Your task to perform on an android device: install app "Etsy: Buy & Sell Unique Items" Image 0: 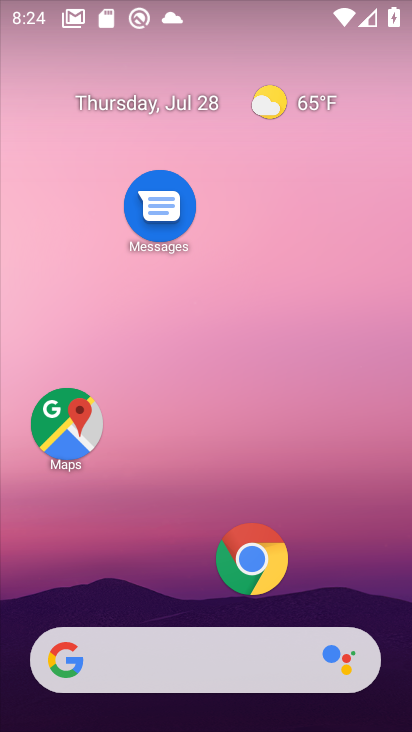
Step 0: drag from (163, 593) to (123, 0)
Your task to perform on an android device: install app "Etsy: Buy & Sell Unique Items" Image 1: 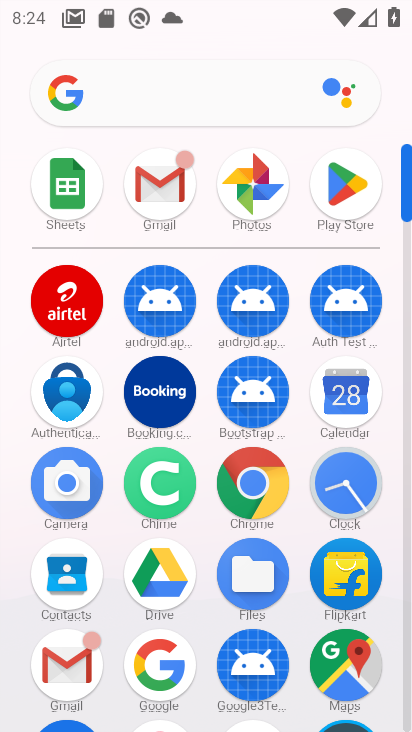
Step 1: click (343, 186)
Your task to perform on an android device: install app "Etsy: Buy & Sell Unique Items" Image 2: 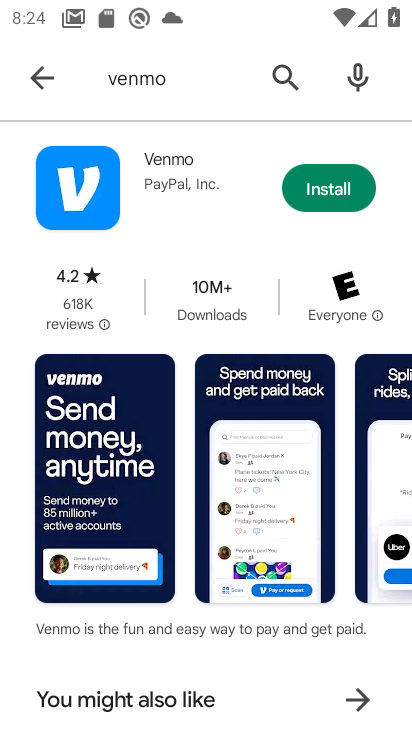
Step 2: click (139, 84)
Your task to perform on an android device: install app "Etsy: Buy & Sell Unique Items" Image 3: 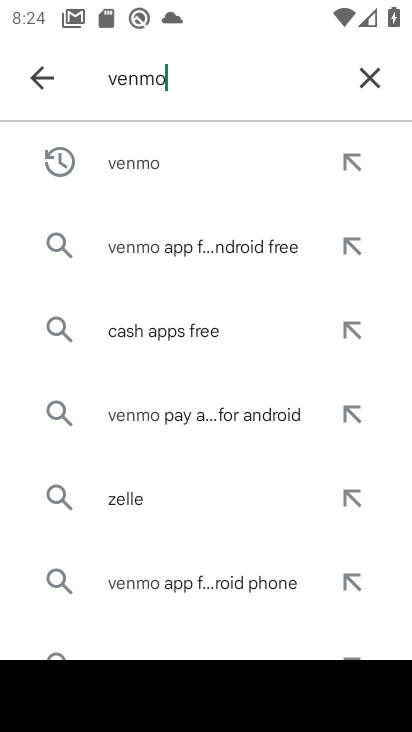
Step 3: click (366, 79)
Your task to perform on an android device: install app "Etsy: Buy & Sell Unique Items" Image 4: 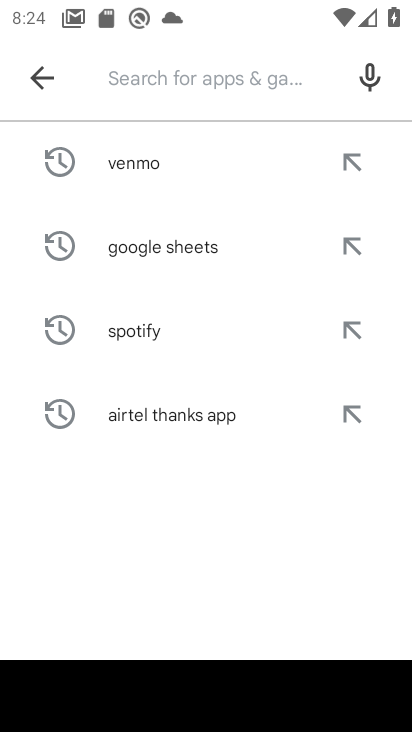
Step 4: type "Etsy"
Your task to perform on an android device: install app "Etsy: Buy & Sell Unique Items" Image 5: 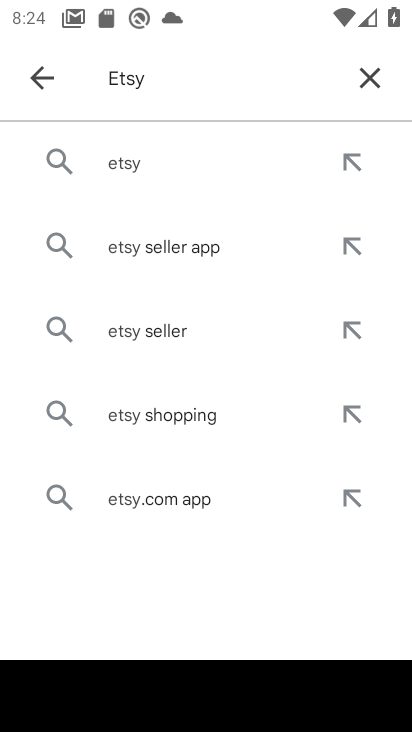
Step 5: click (129, 168)
Your task to perform on an android device: install app "Etsy: Buy & Sell Unique Items" Image 6: 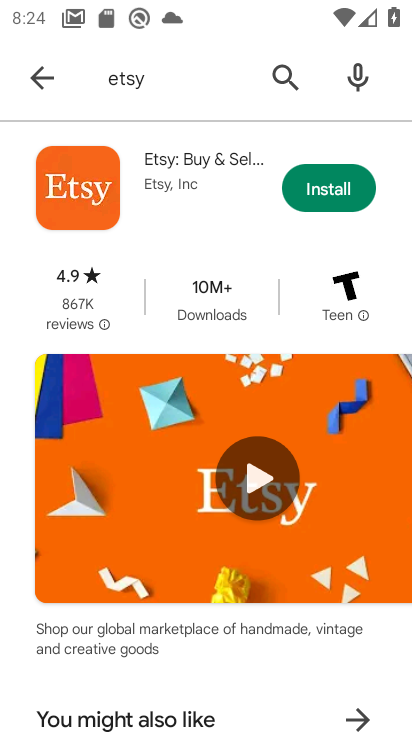
Step 6: click (328, 198)
Your task to perform on an android device: install app "Etsy: Buy & Sell Unique Items" Image 7: 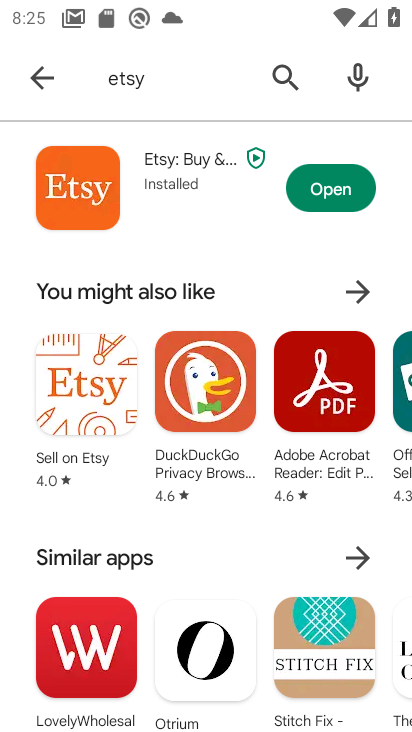
Step 7: task complete